Your task to perform on an android device: Open internet settings Image 0: 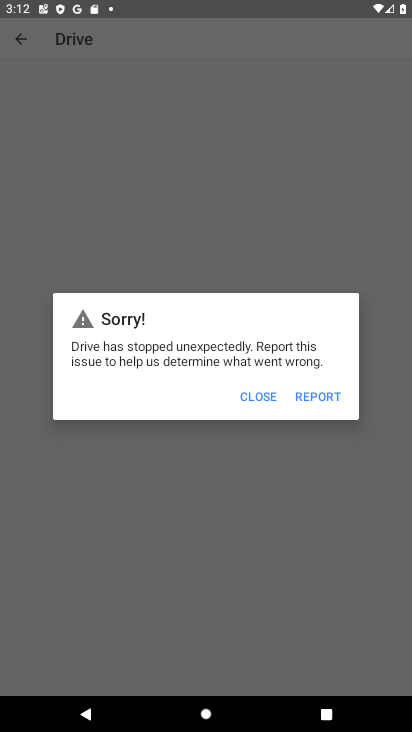
Step 0: press home button
Your task to perform on an android device: Open internet settings Image 1: 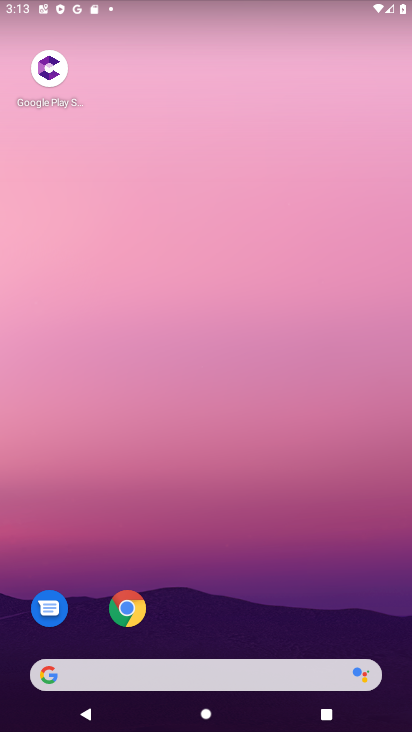
Step 1: drag from (230, 628) to (262, 92)
Your task to perform on an android device: Open internet settings Image 2: 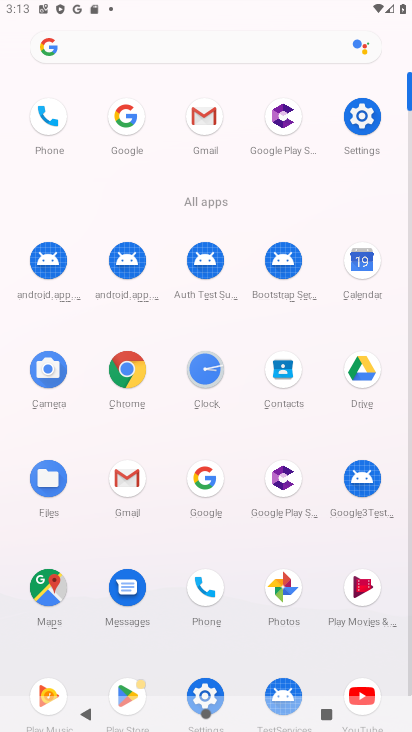
Step 2: click (367, 113)
Your task to perform on an android device: Open internet settings Image 3: 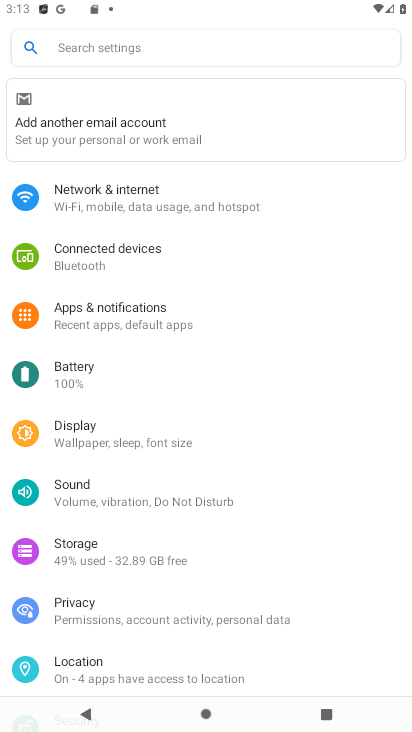
Step 3: click (245, 204)
Your task to perform on an android device: Open internet settings Image 4: 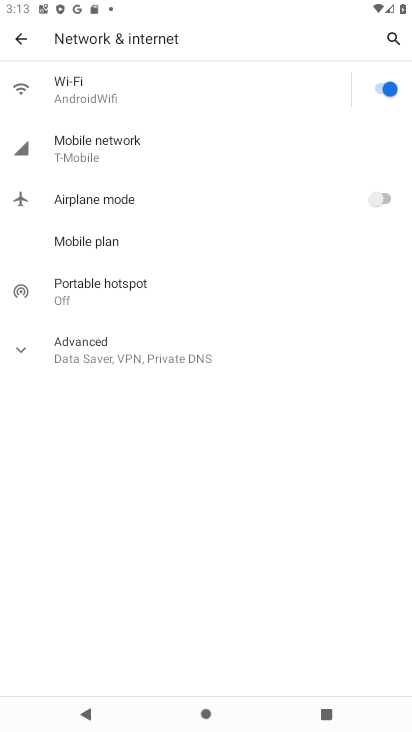
Step 4: task complete